Your task to perform on an android device: open app "Pluto TV - Live TV and Movies" (install if not already installed) Image 0: 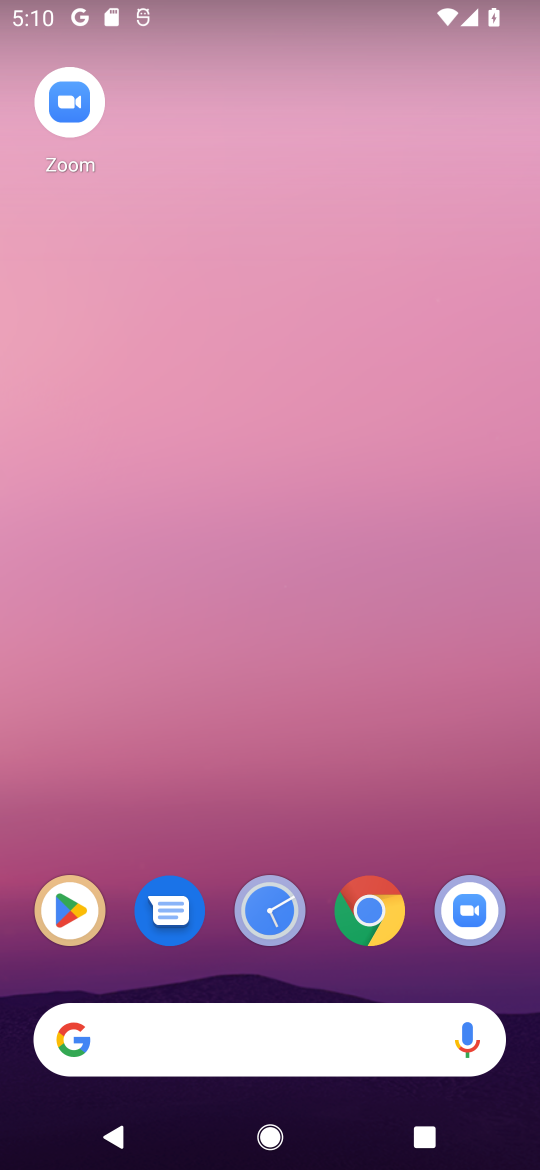
Step 0: click (70, 900)
Your task to perform on an android device: open app "Pluto TV - Live TV and Movies" (install if not already installed) Image 1: 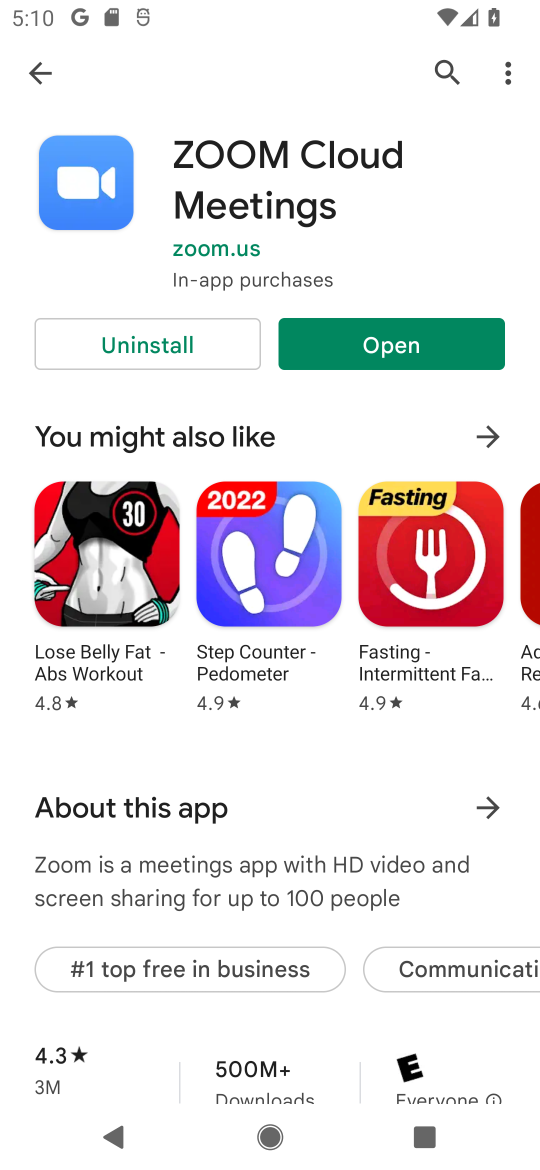
Step 1: click (441, 86)
Your task to perform on an android device: open app "Pluto TV - Live TV and Movies" (install if not already installed) Image 2: 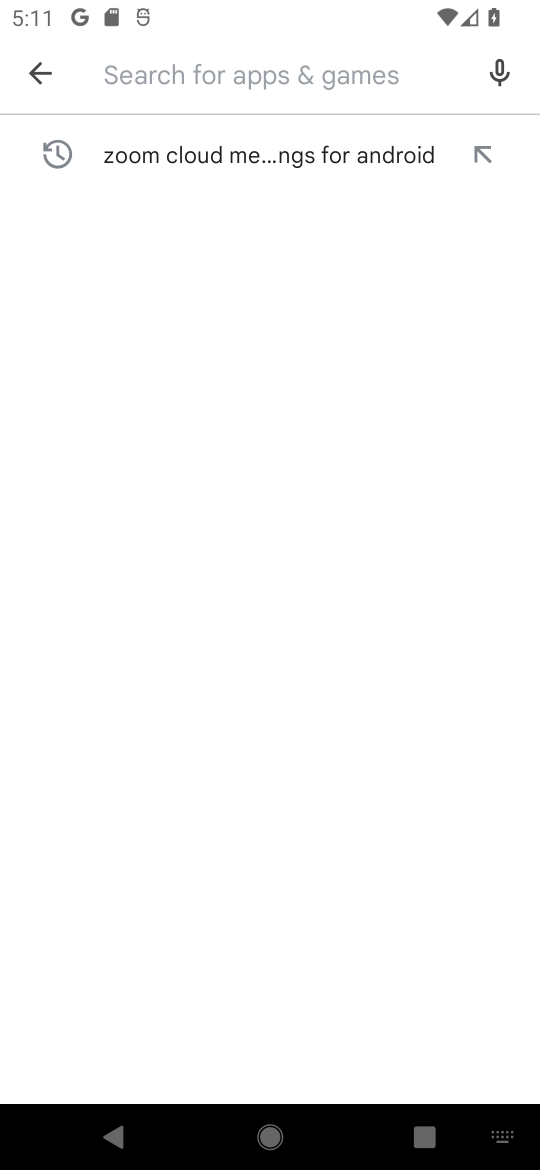
Step 2: type "Pluto TV - Live TV and movies"
Your task to perform on an android device: open app "Pluto TV - Live TV and Movies" (install if not already installed) Image 3: 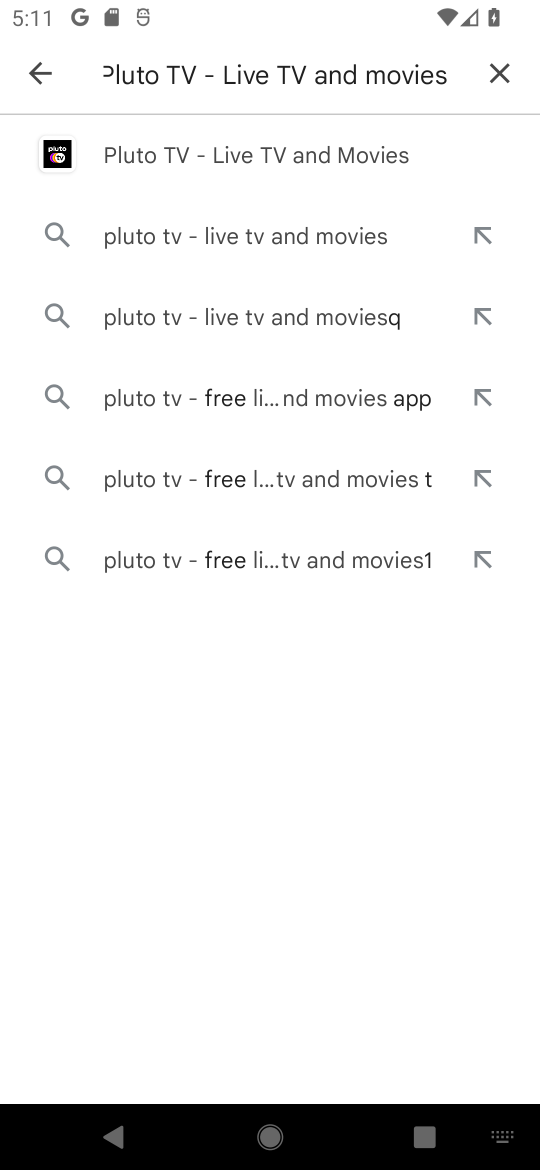
Step 3: click (270, 157)
Your task to perform on an android device: open app "Pluto TV - Live TV and Movies" (install if not already installed) Image 4: 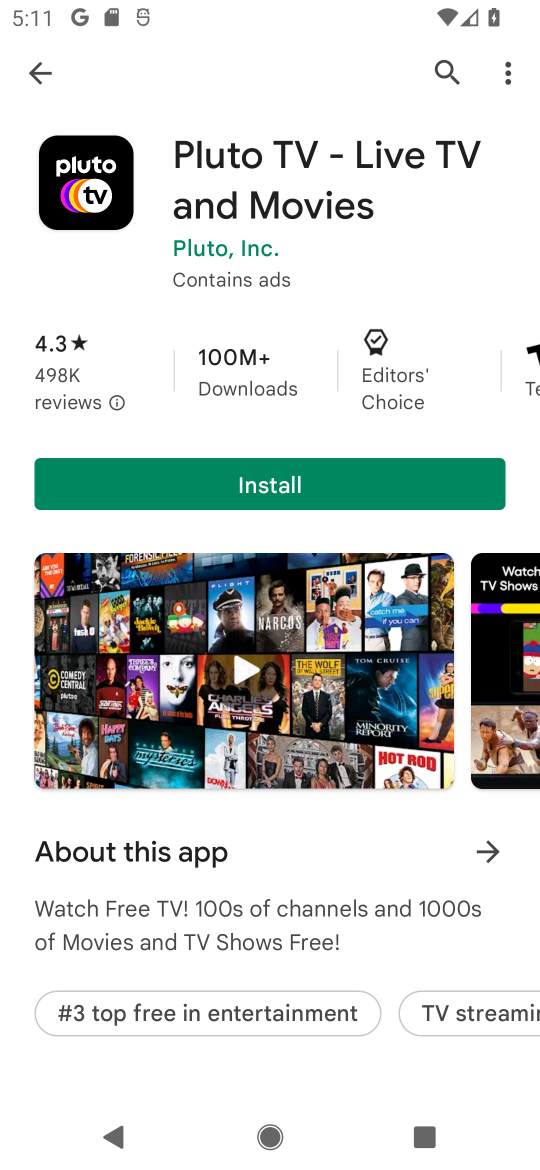
Step 4: click (294, 489)
Your task to perform on an android device: open app "Pluto TV - Live TV and Movies" (install if not already installed) Image 5: 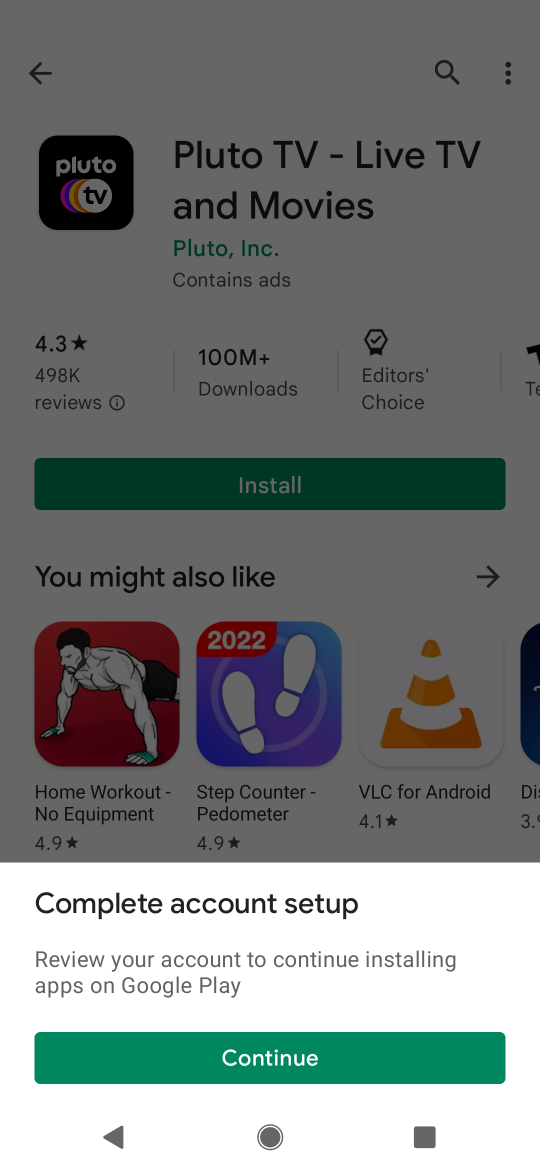
Step 5: click (296, 1053)
Your task to perform on an android device: open app "Pluto TV - Live TV and Movies" (install if not already installed) Image 6: 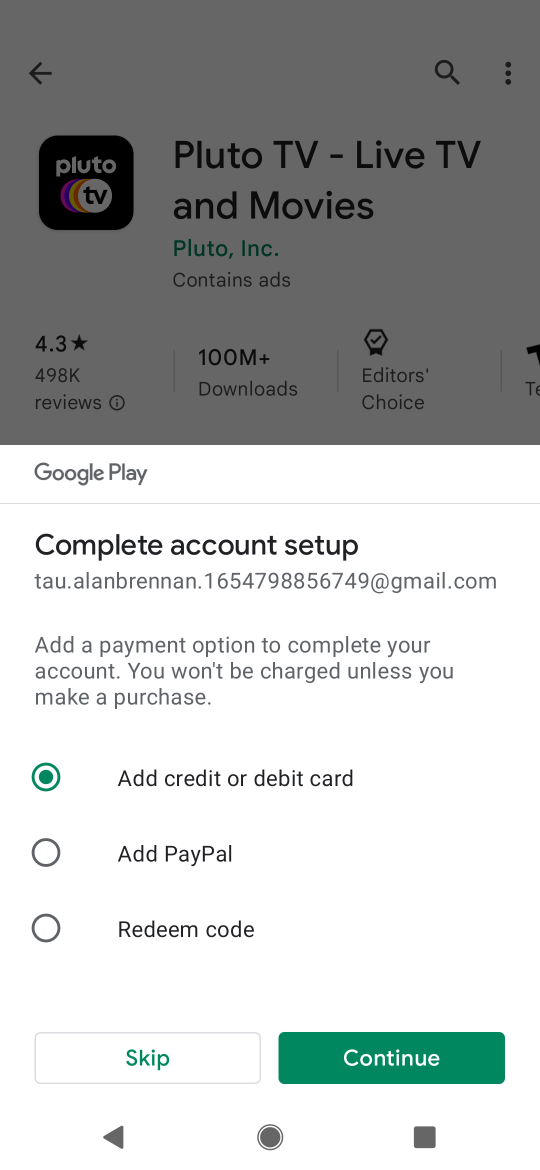
Step 6: click (193, 1048)
Your task to perform on an android device: open app "Pluto TV - Live TV and Movies" (install if not already installed) Image 7: 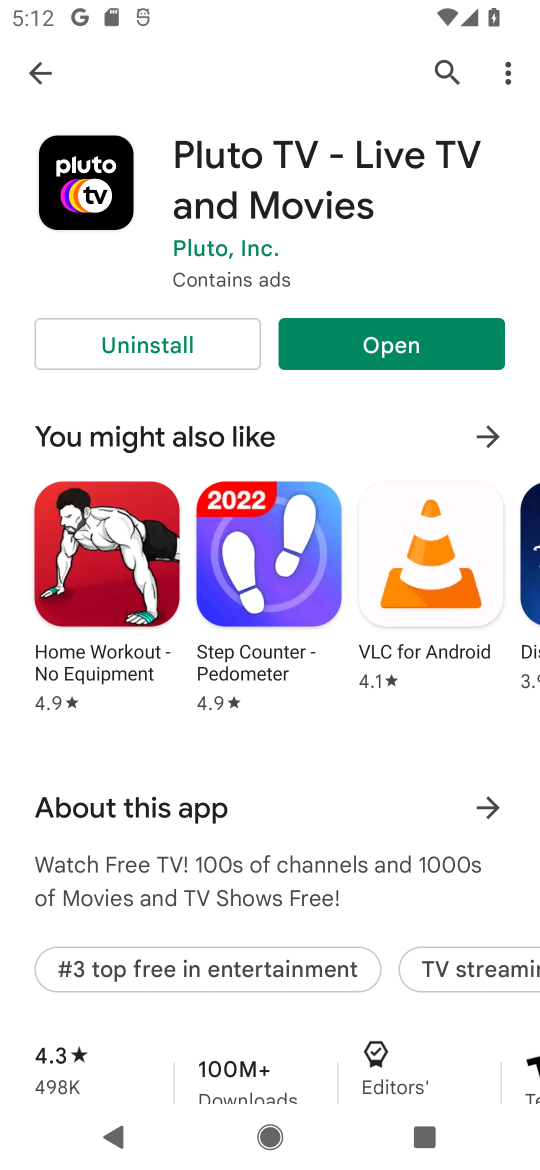
Step 7: click (364, 349)
Your task to perform on an android device: open app "Pluto TV - Live TV and Movies" (install if not already installed) Image 8: 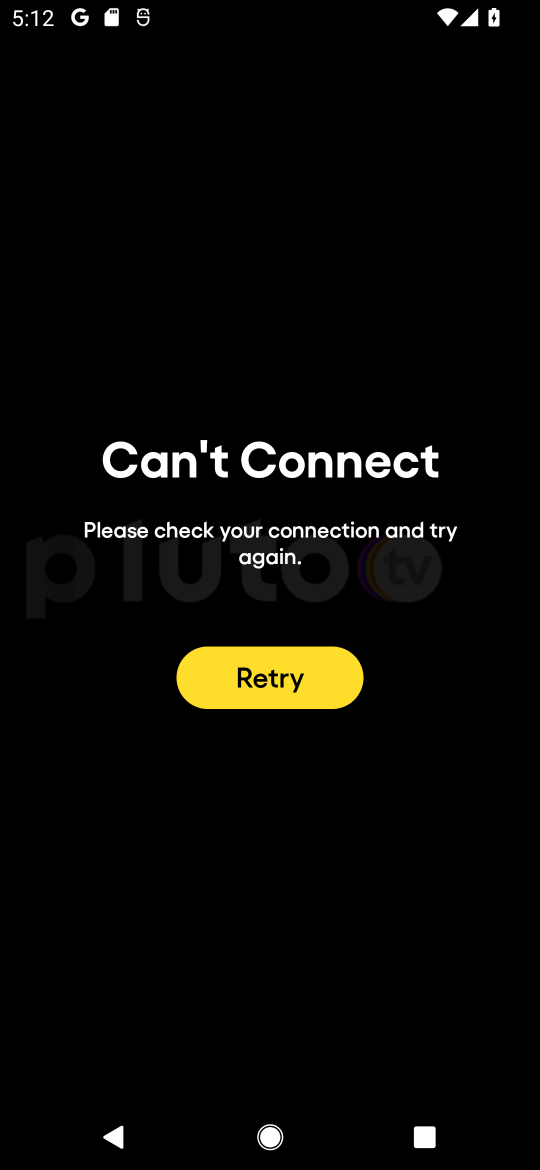
Step 8: task complete